Your task to perform on an android device: View the shopping cart on bestbuy.com. Add razer blade to the cart on bestbuy.com, then select checkout. Image 0: 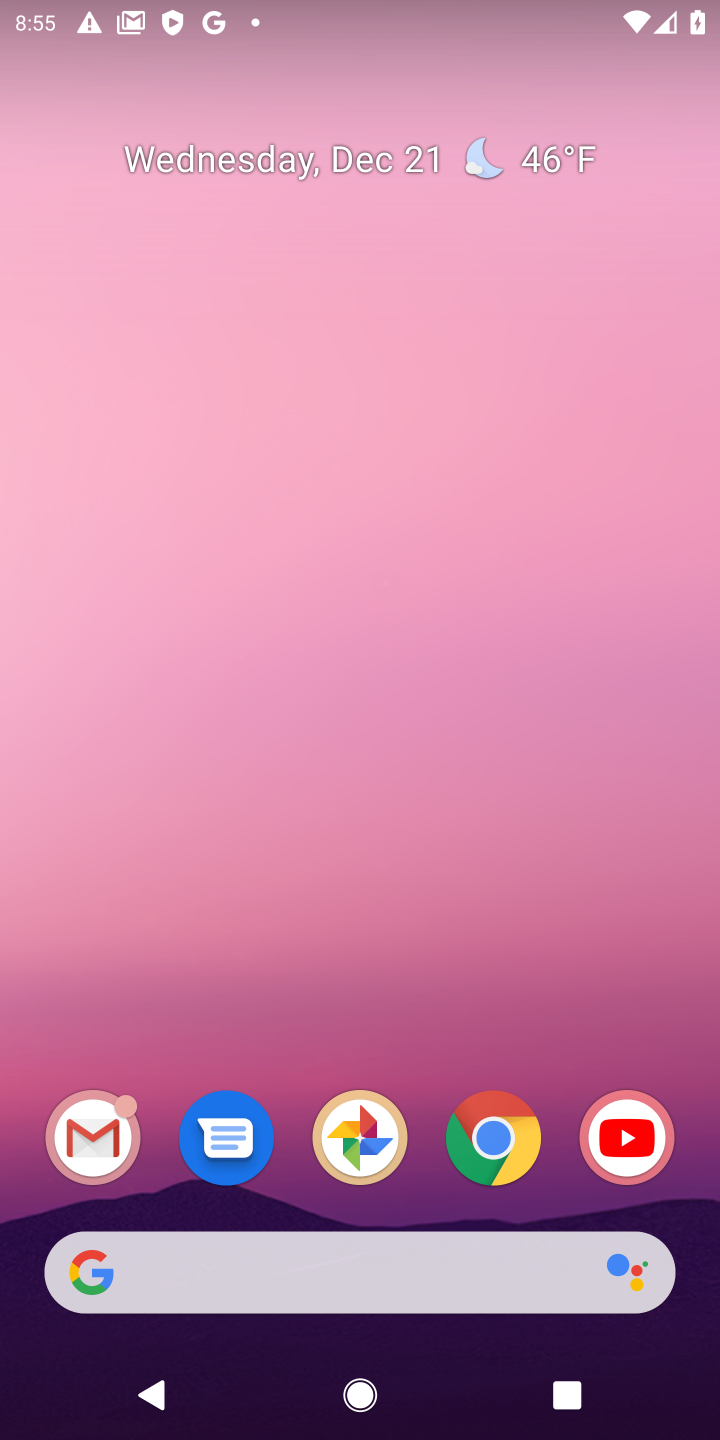
Step 0: click (497, 1131)
Your task to perform on an android device: View the shopping cart on bestbuy.com. Add razer blade to the cart on bestbuy.com, then select checkout. Image 1: 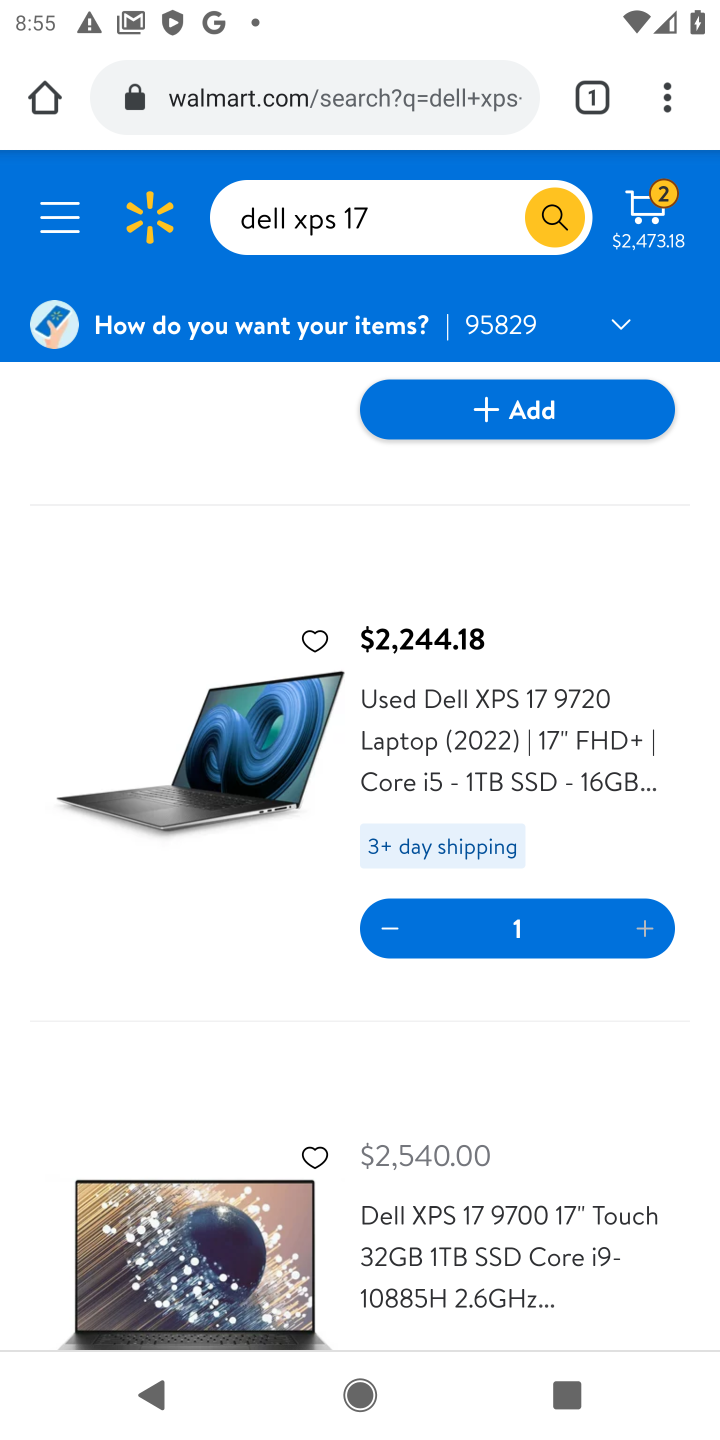
Step 1: click (286, 109)
Your task to perform on an android device: View the shopping cart on bestbuy.com. Add razer blade to the cart on bestbuy.com, then select checkout. Image 2: 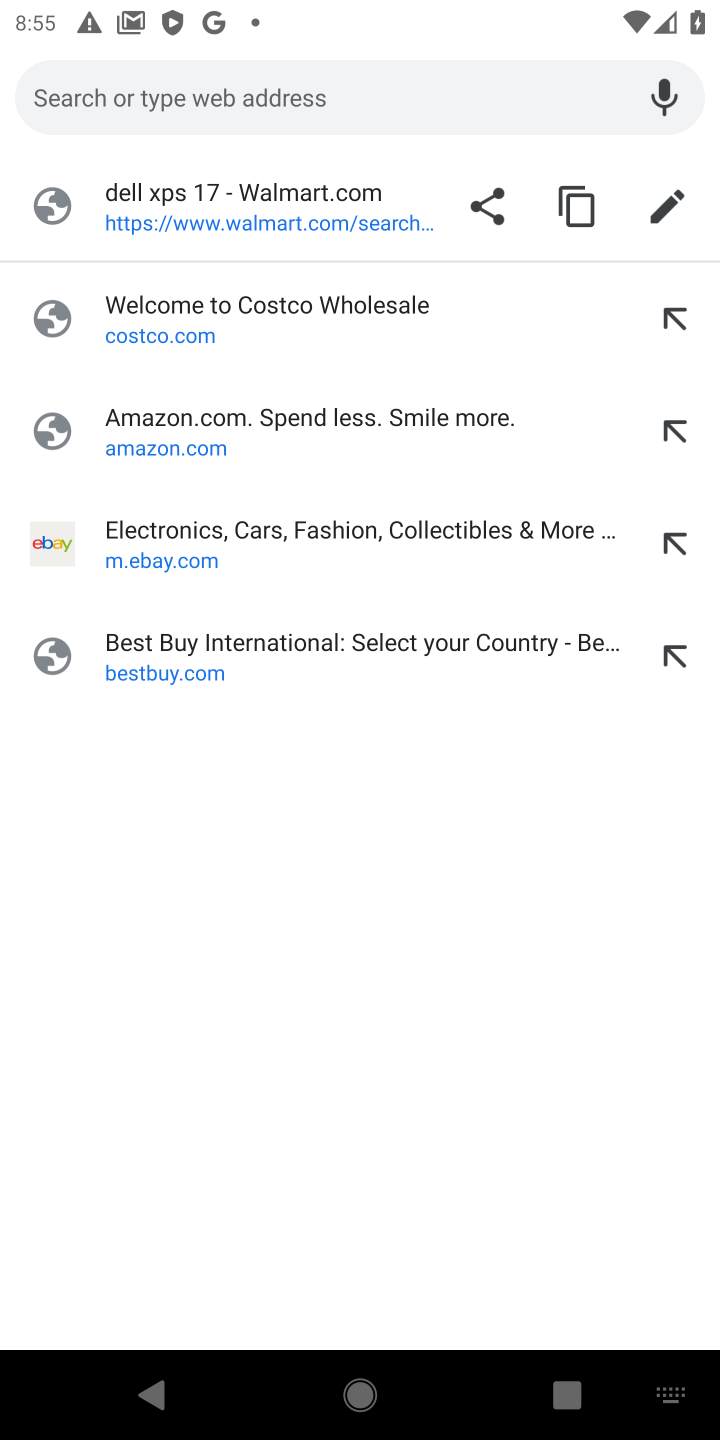
Step 2: click (138, 674)
Your task to perform on an android device: View the shopping cart on bestbuy.com. Add razer blade to the cart on bestbuy.com, then select checkout. Image 3: 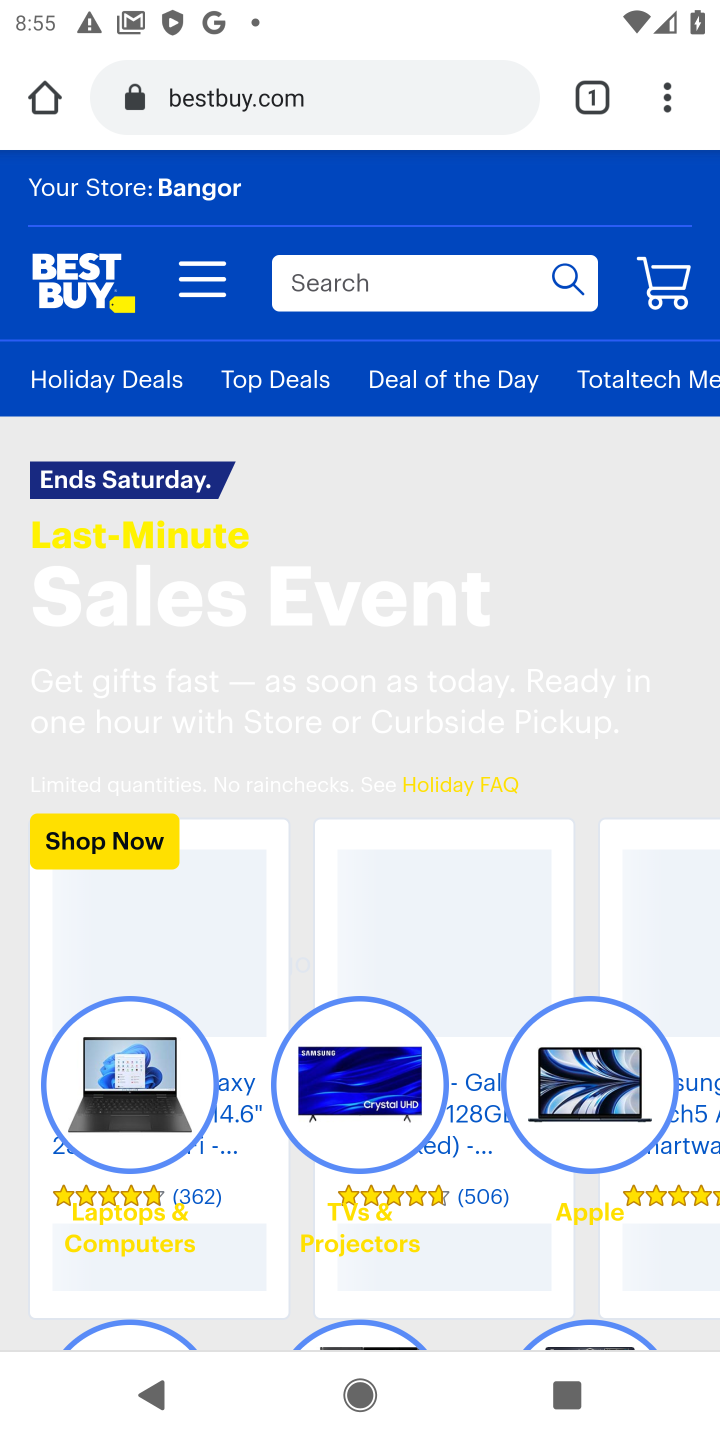
Step 3: click (659, 289)
Your task to perform on an android device: View the shopping cart on bestbuy.com. Add razer blade to the cart on bestbuy.com, then select checkout. Image 4: 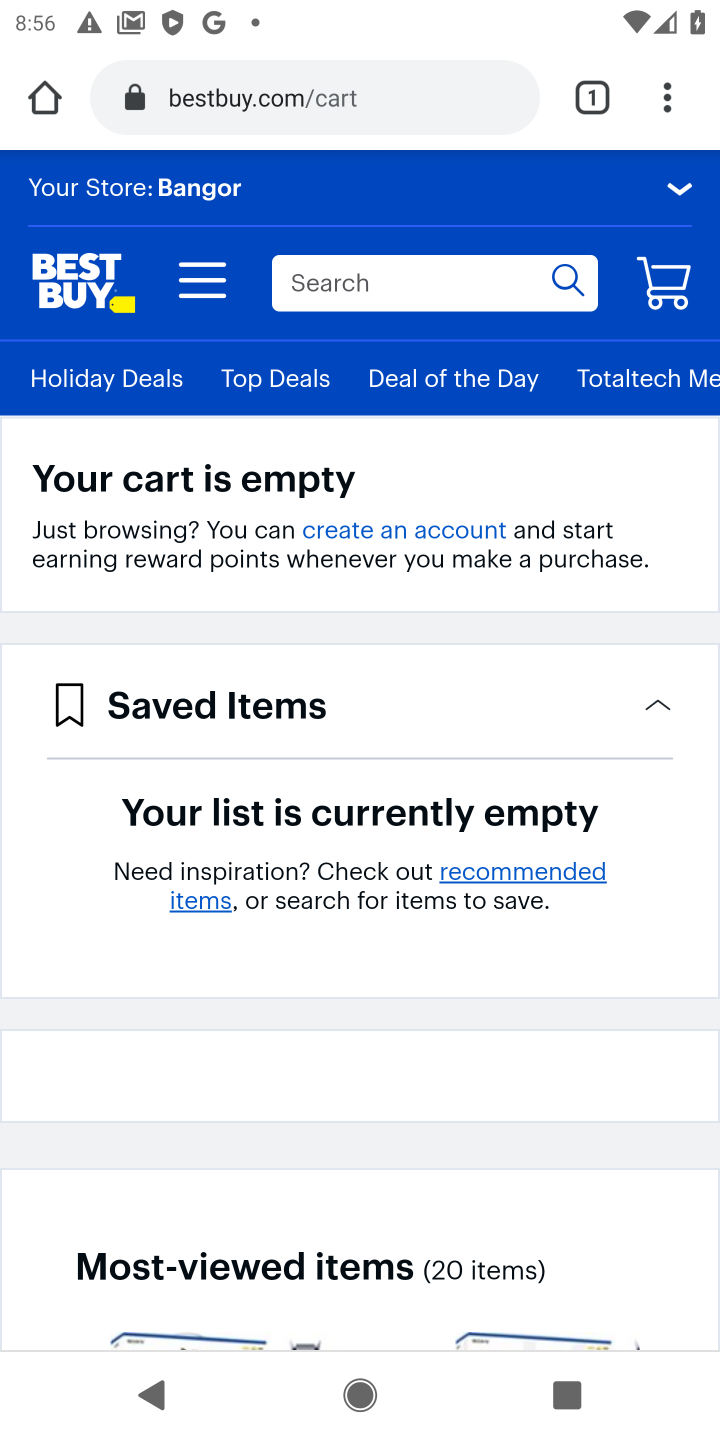
Step 4: click (301, 290)
Your task to perform on an android device: View the shopping cart on bestbuy.com. Add razer blade to the cart on bestbuy.com, then select checkout. Image 5: 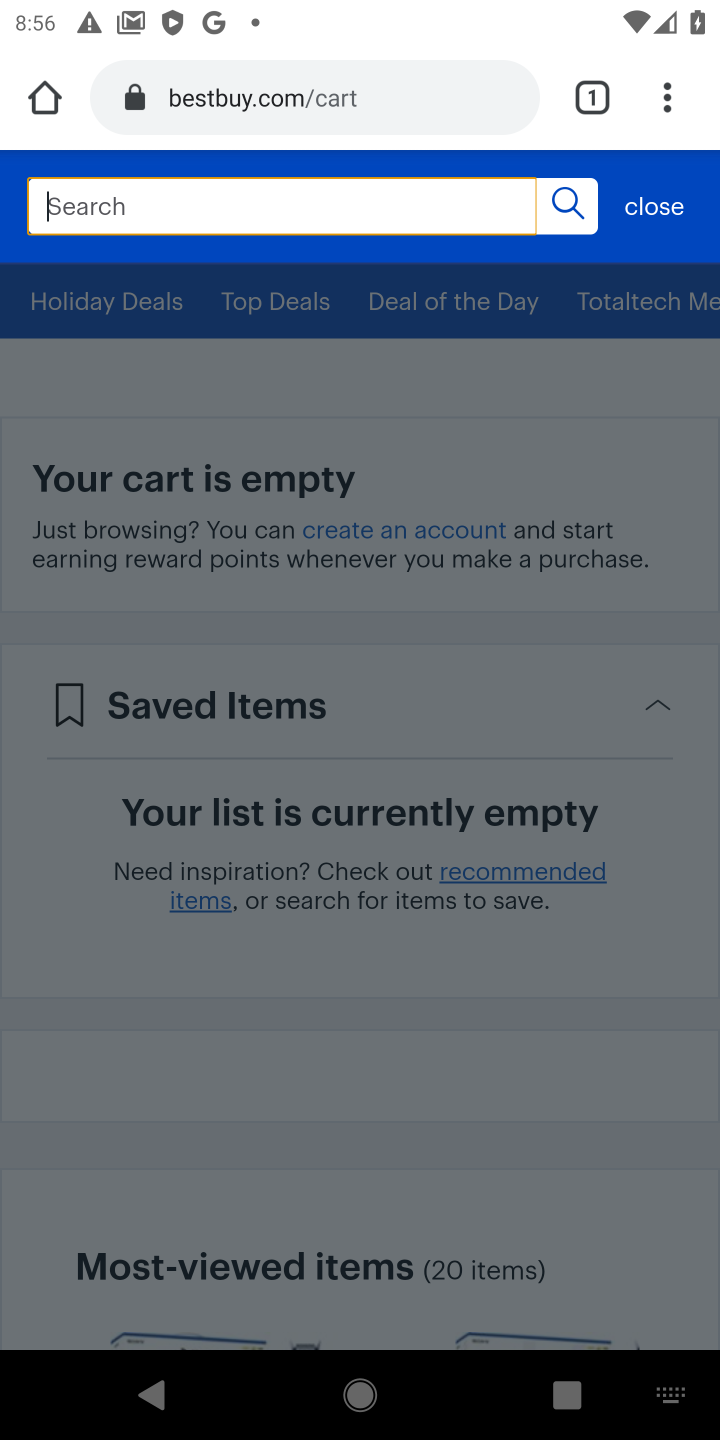
Step 5: type "razer blade"
Your task to perform on an android device: View the shopping cart on bestbuy.com. Add razer blade to the cart on bestbuy.com, then select checkout. Image 6: 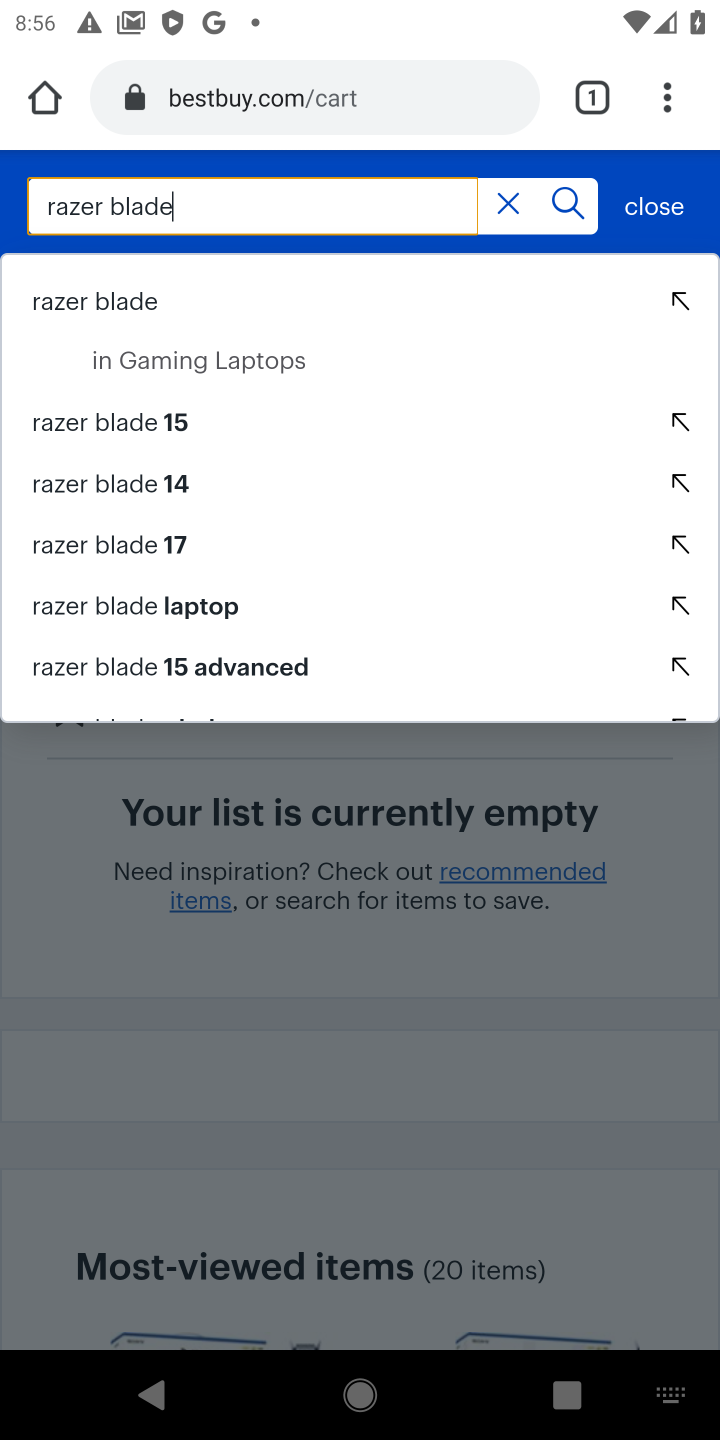
Step 6: click (112, 306)
Your task to perform on an android device: View the shopping cart on bestbuy.com. Add razer blade to the cart on bestbuy.com, then select checkout. Image 7: 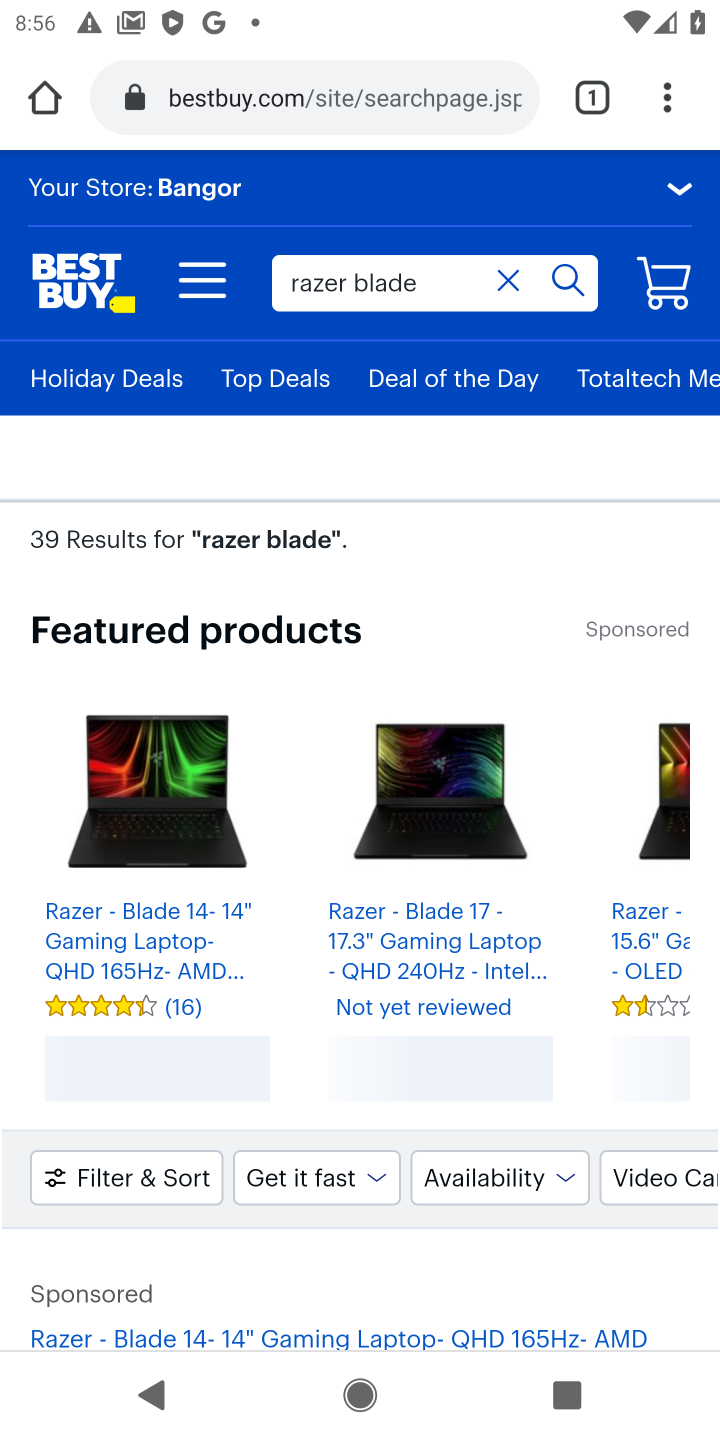
Step 7: drag from (372, 1013) to (374, 547)
Your task to perform on an android device: View the shopping cart on bestbuy.com. Add razer blade to the cart on bestbuy.com, then select checkout. Image 8: 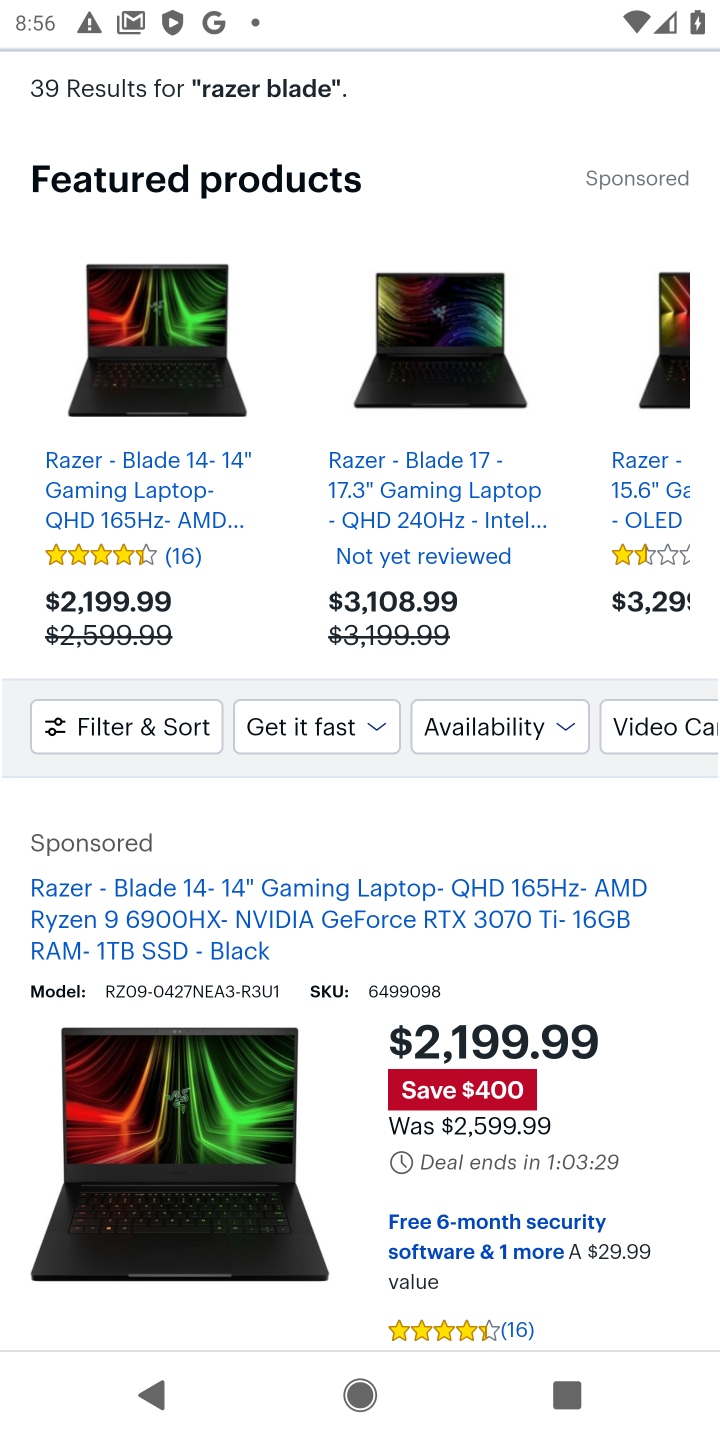
Step 8: drag from (295, 1179) to (304, 777)
Your task to perform on an android device: View the shopping cart on bestbuy.com. Add razer blade to the cart on bestbuy.com, then select checkout. Image 9: 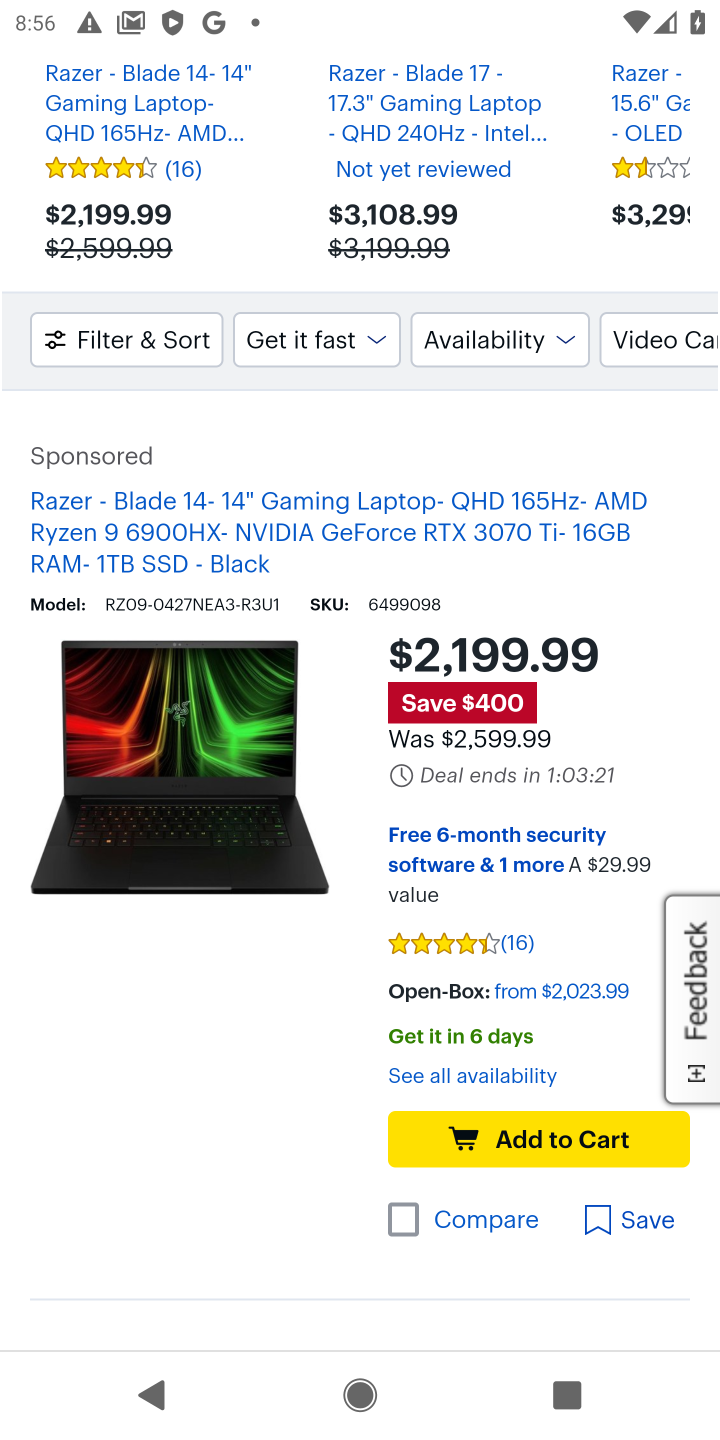
Step 9: click (534, 1143)
Your task to perform on an android device: View the shopping cart on bestbuy.com. Add razer blade to the cart on bestbuy.com, then select checkout. Image 10: 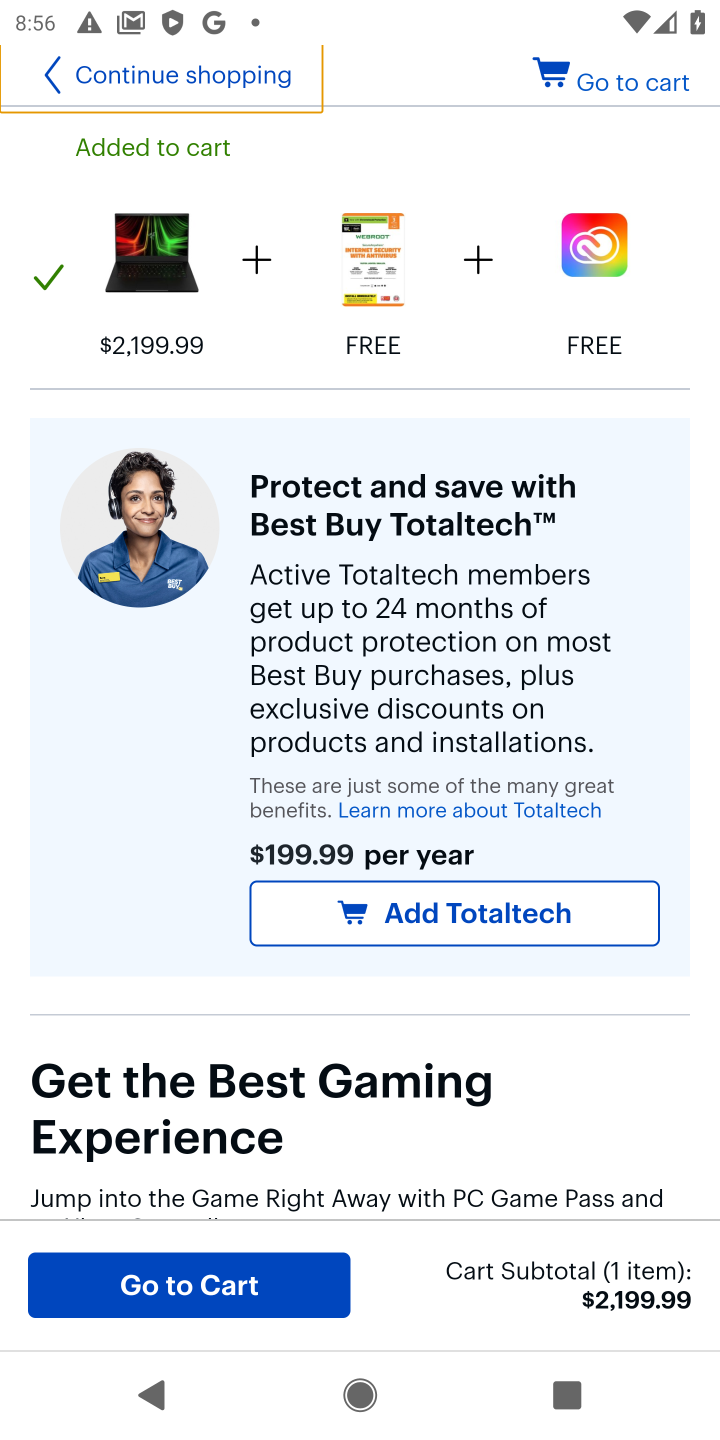
Step 10: click (627, 87)
Your task to perform on an android device: View the shopping cart on bestbuy.com. Add razer blade to the cart on bestbuy.com, then select checkout. Image 11: 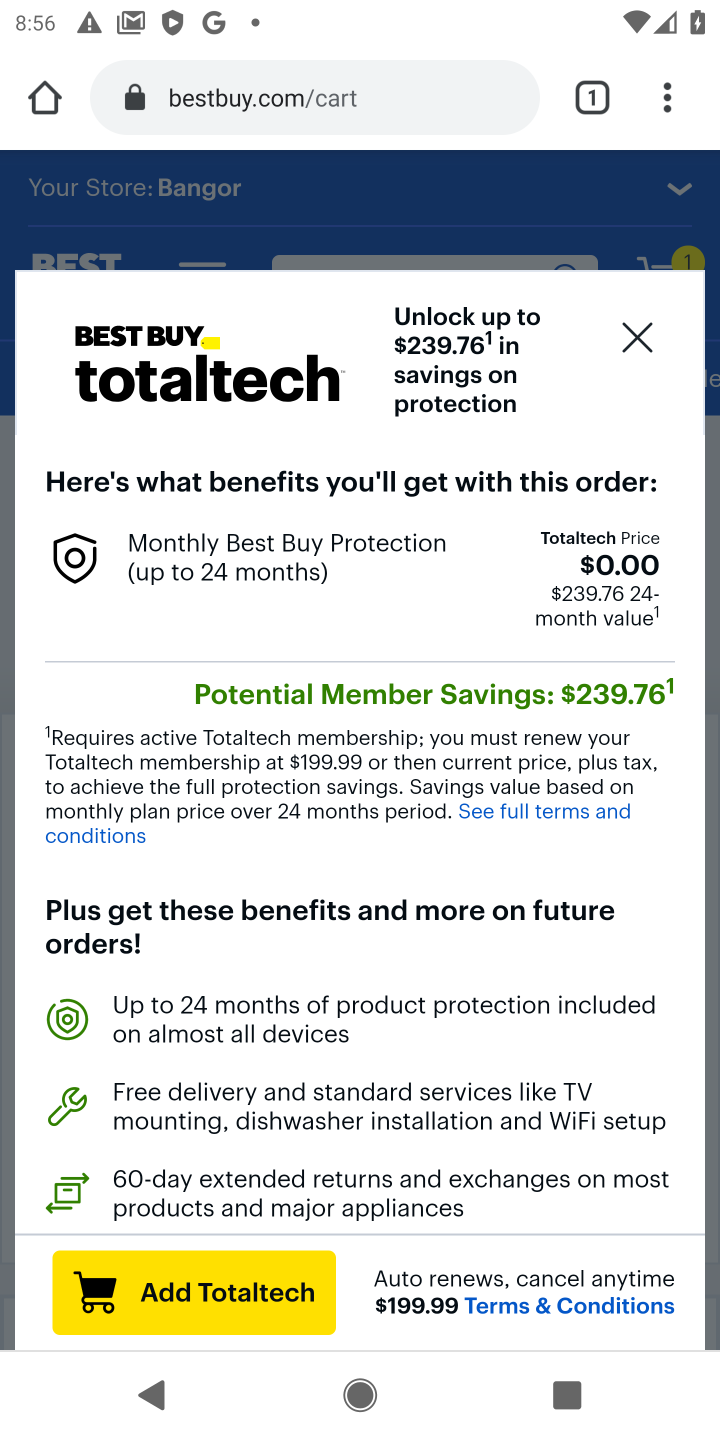
Step 11: click (636, 337)
Your task to perform on an android device: View the shopping cart on bestbuy.com. Add razer blade to the cart on bestbuy.com, then select checkout. Image 12: 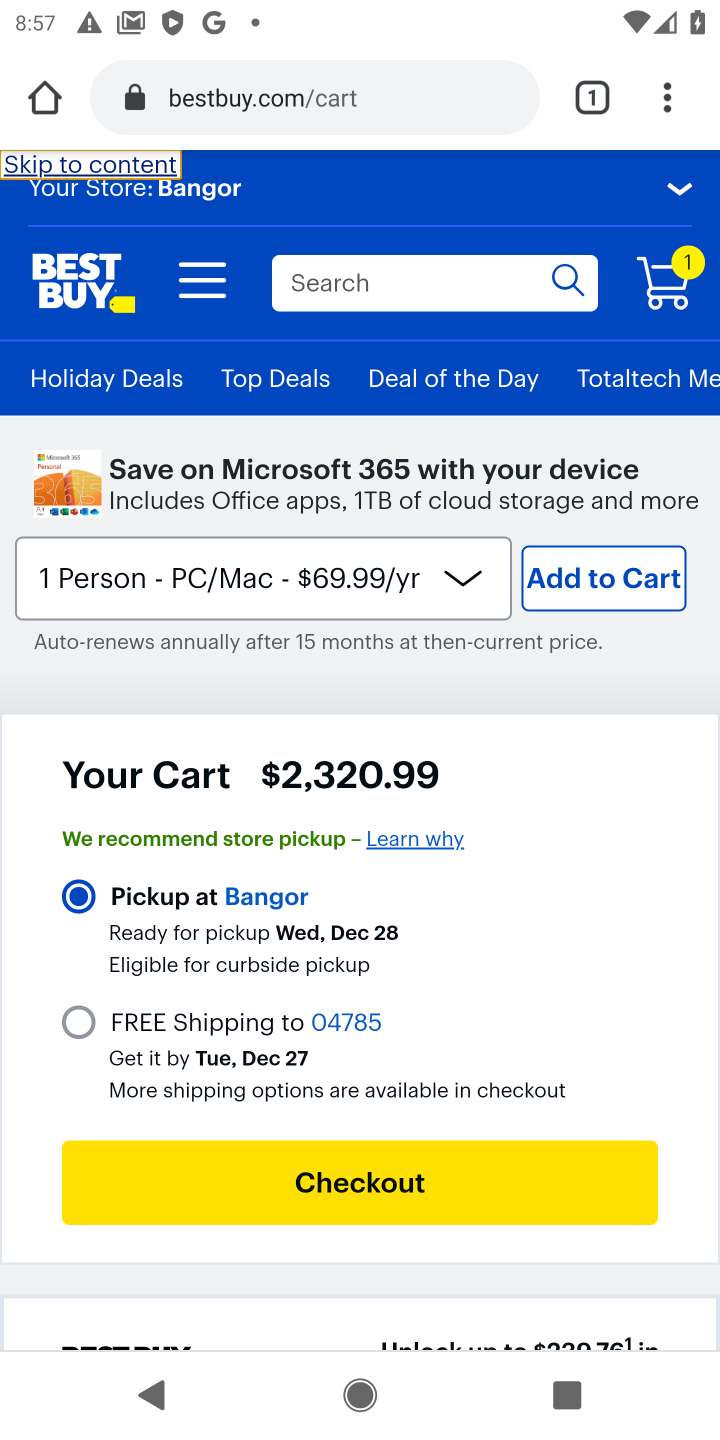
Step 12: click (322, 1197)
Your task to perform on an android device: View the shopping cart on bestbuy.com. Add razer blade to the cart on bestbuy.com, then select checkout. Image 13: 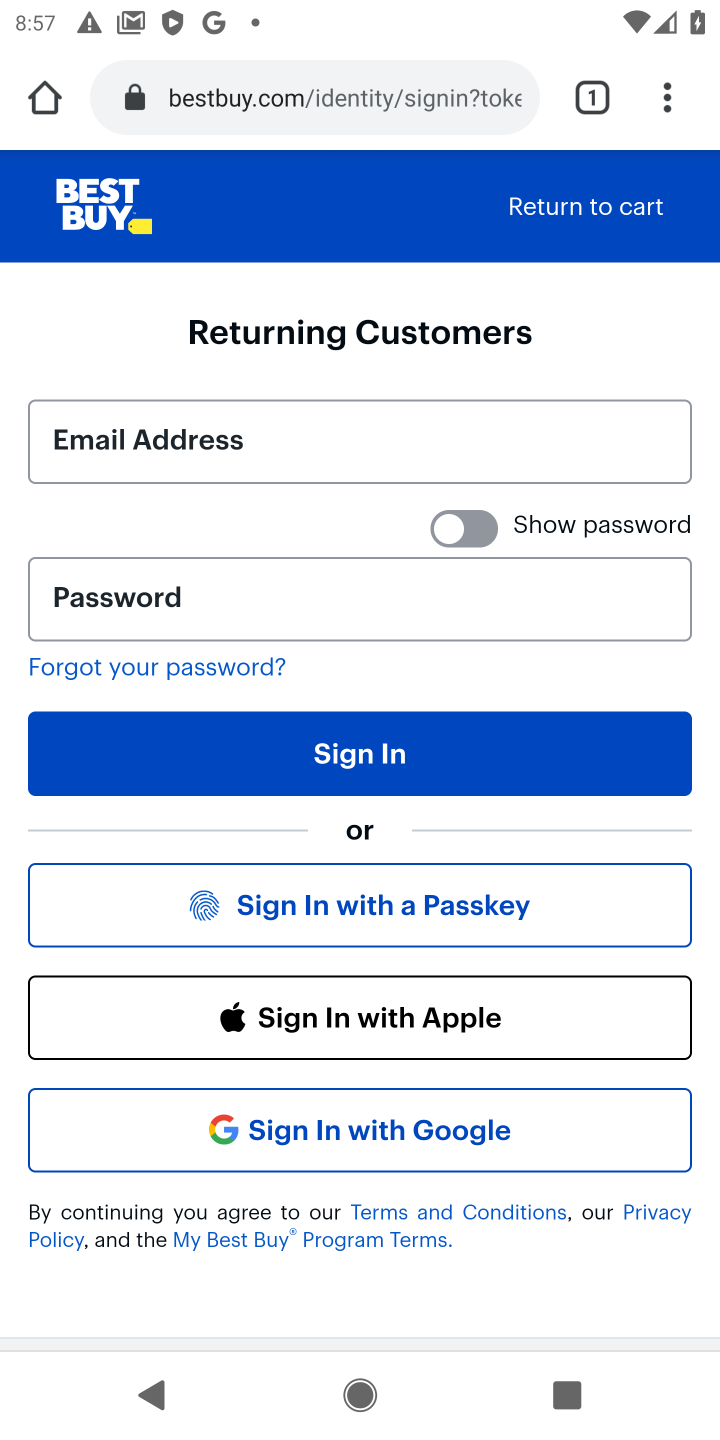
Step 13: task complete